Your task to perform on an android device: change the upload size in google photos Image 0: 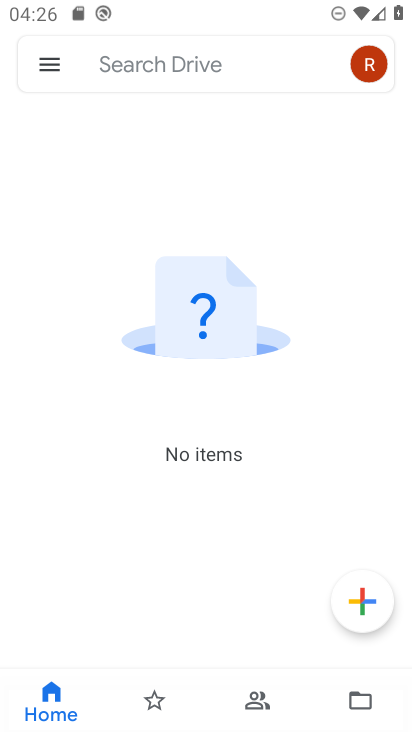
Step 0: press home button
Your task to perform on an android device: change the upload size in google photos Image 1: 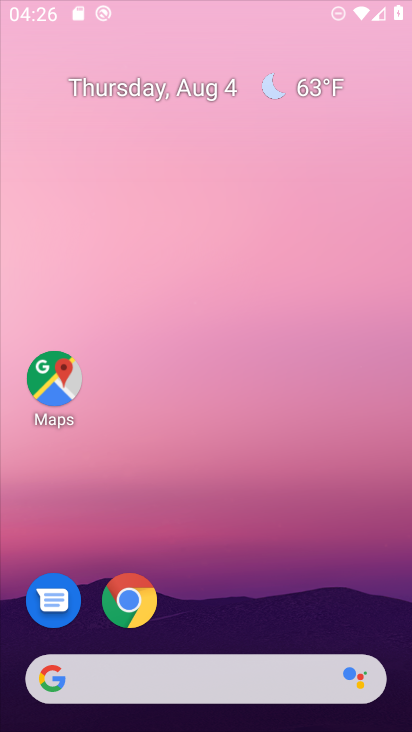
Step 1: press home button
Your task to perform on an android device: change the upload size in google photos Image 2: 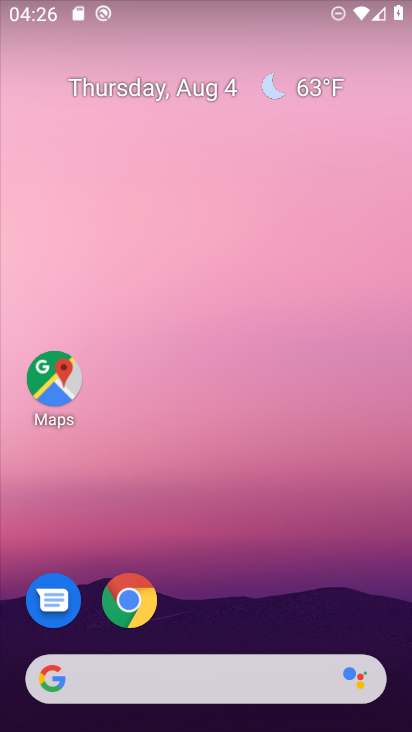
Step 2: drag from (287, 426) to (269, 153)
Your task to perform on an android device: change the upload size in google photos Image 3: 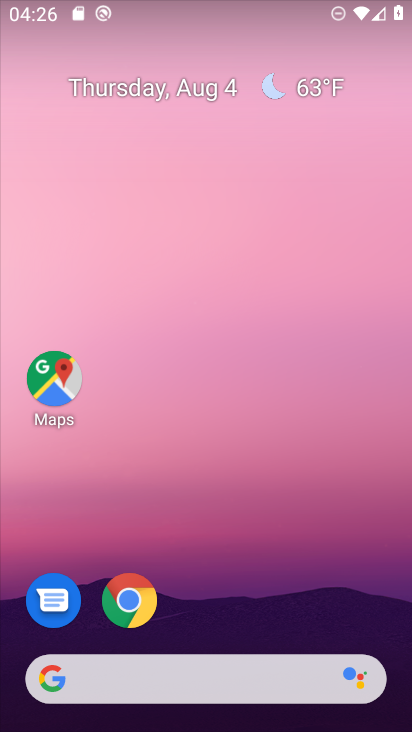
Step 3: drag from (225, 633) to (248, 175)
Your task to perform on an android device: change the upload size in google photos Image 4: 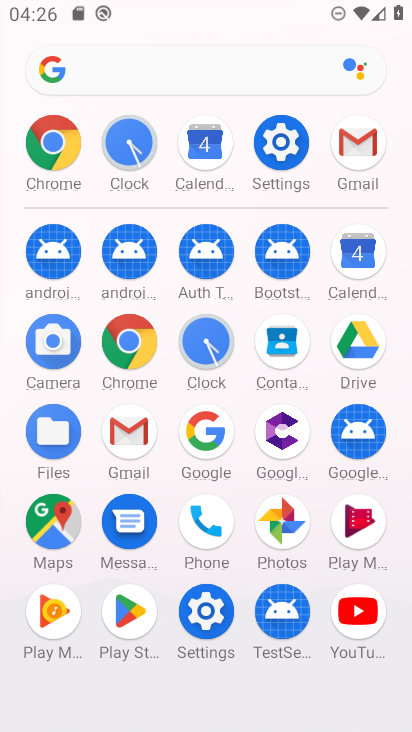
Step 4: click (279, 536)
Your task to perform on an android device: change the upload size in google photos Image 5: 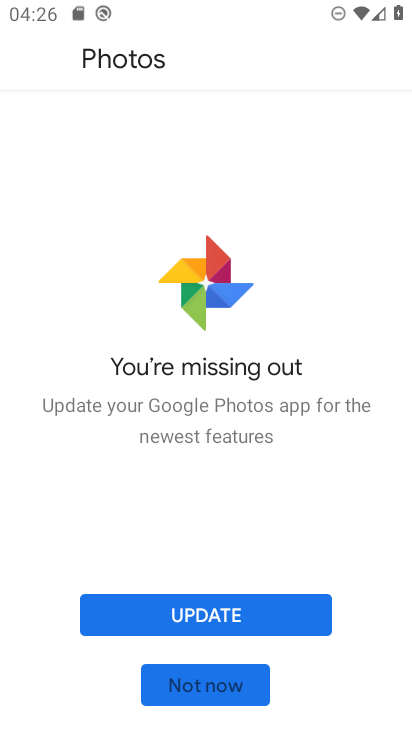
Step 5: click (228, 672)
Your task to perform on an android device: change the upload size in google photos Image 6: 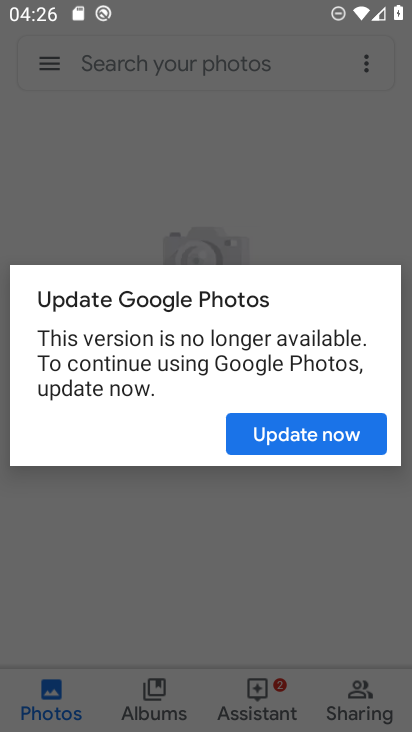
Step 6: click (345, 439)
Your task to perform on an android device: change the upload size in google photos Image 7: 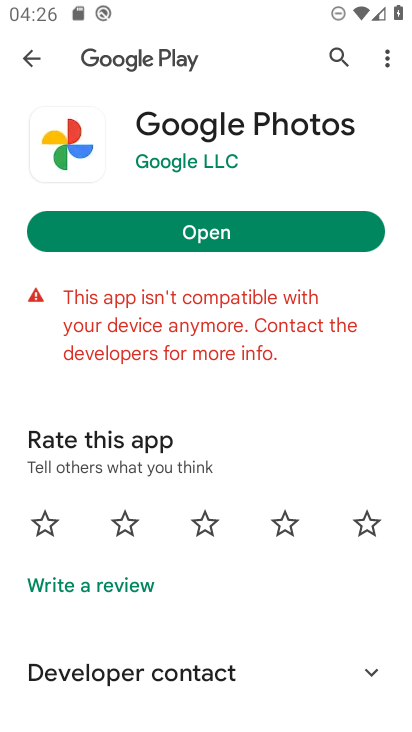
Step 7: task complete